Your task to perform on an android device: open app "Facebook Messenger" Image 0: 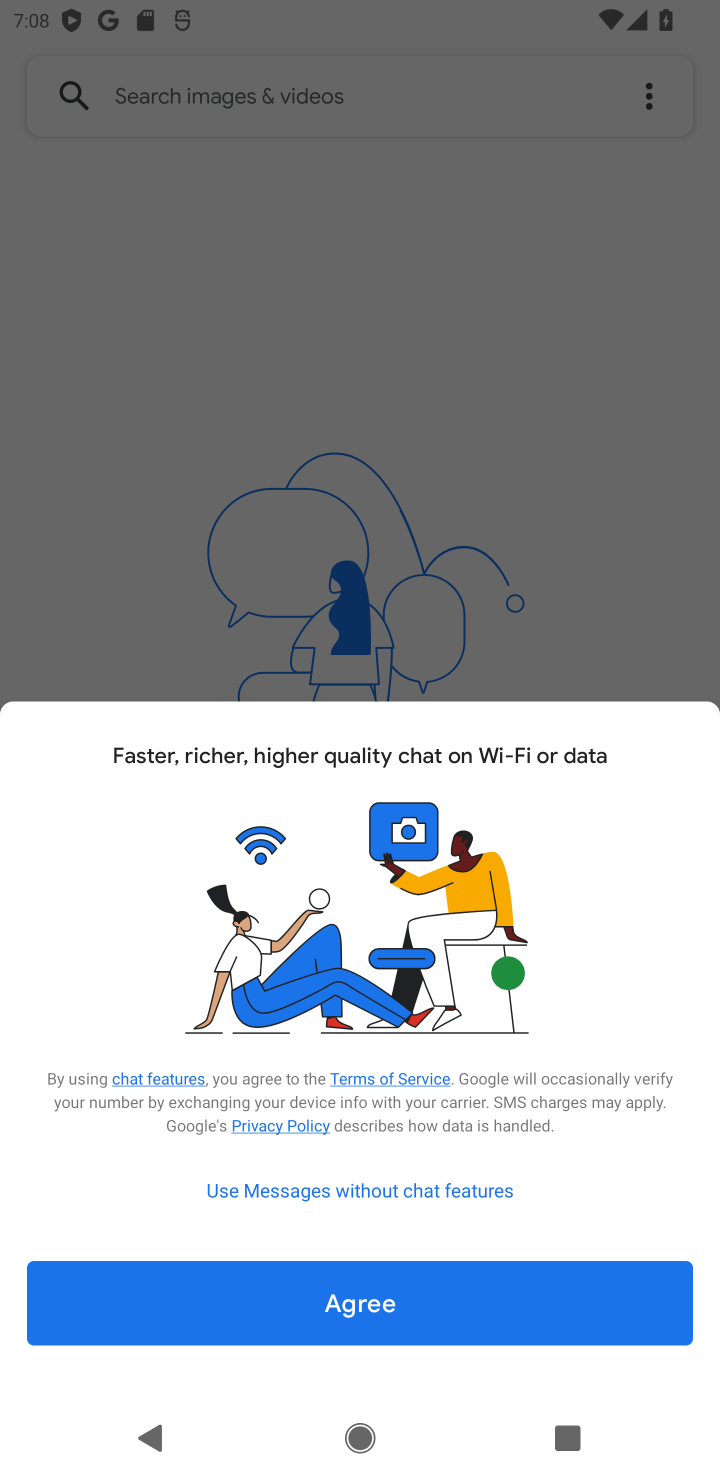
Step 0: press back button
Your task to perform on an android device: open app "Facebook Messenger" Image 1: 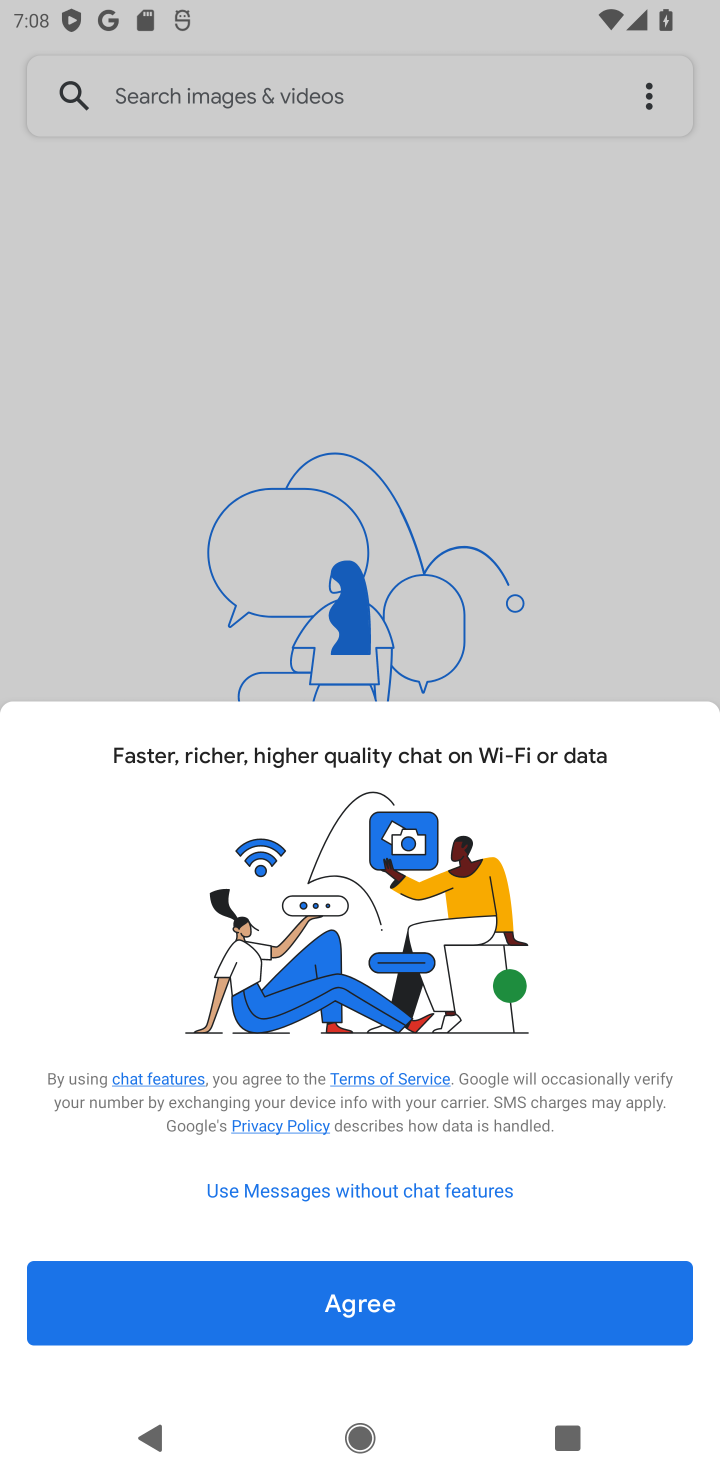
Step 1: press back button
Your task to perform on an android device: open app "Facebook Messenger" Image 2: 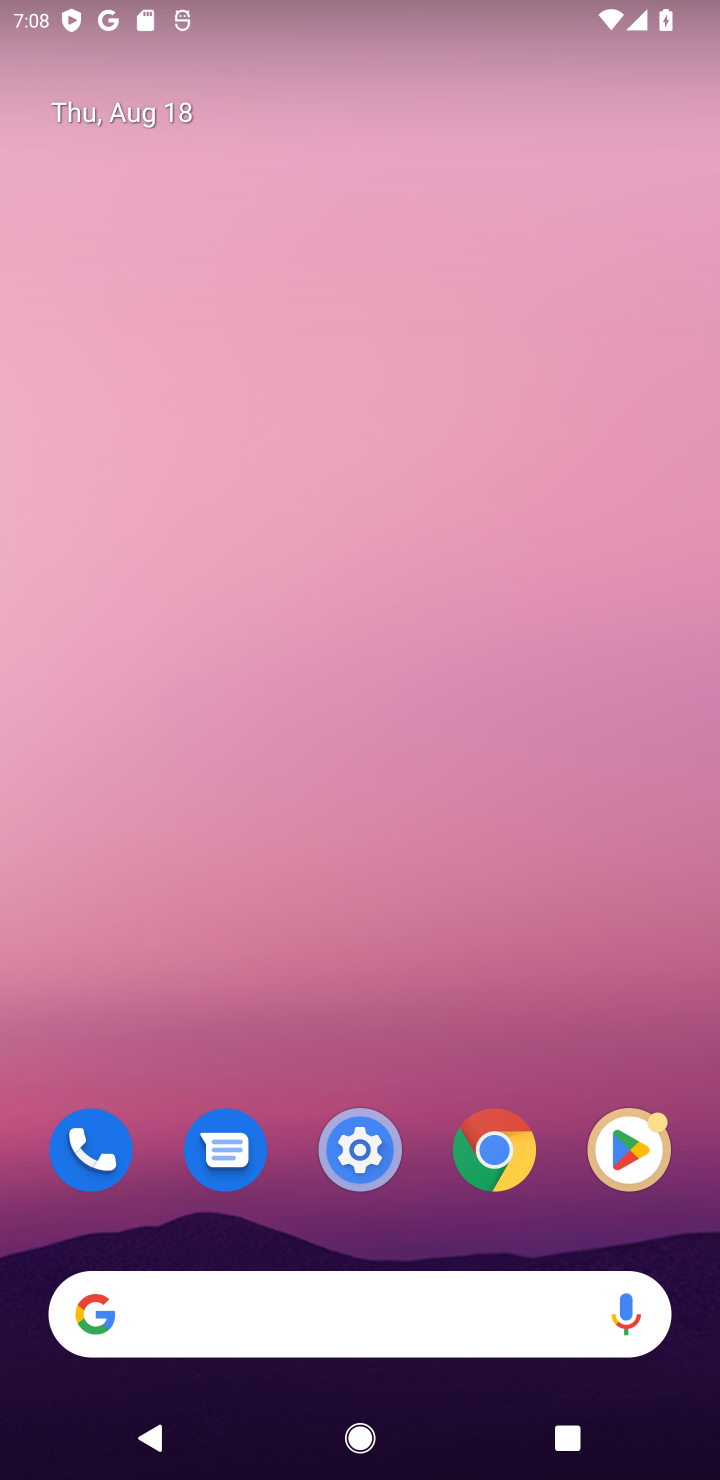
Step 2: press back button
Your task to perform on an android device: open app "Facebook Messenger" Image 3: 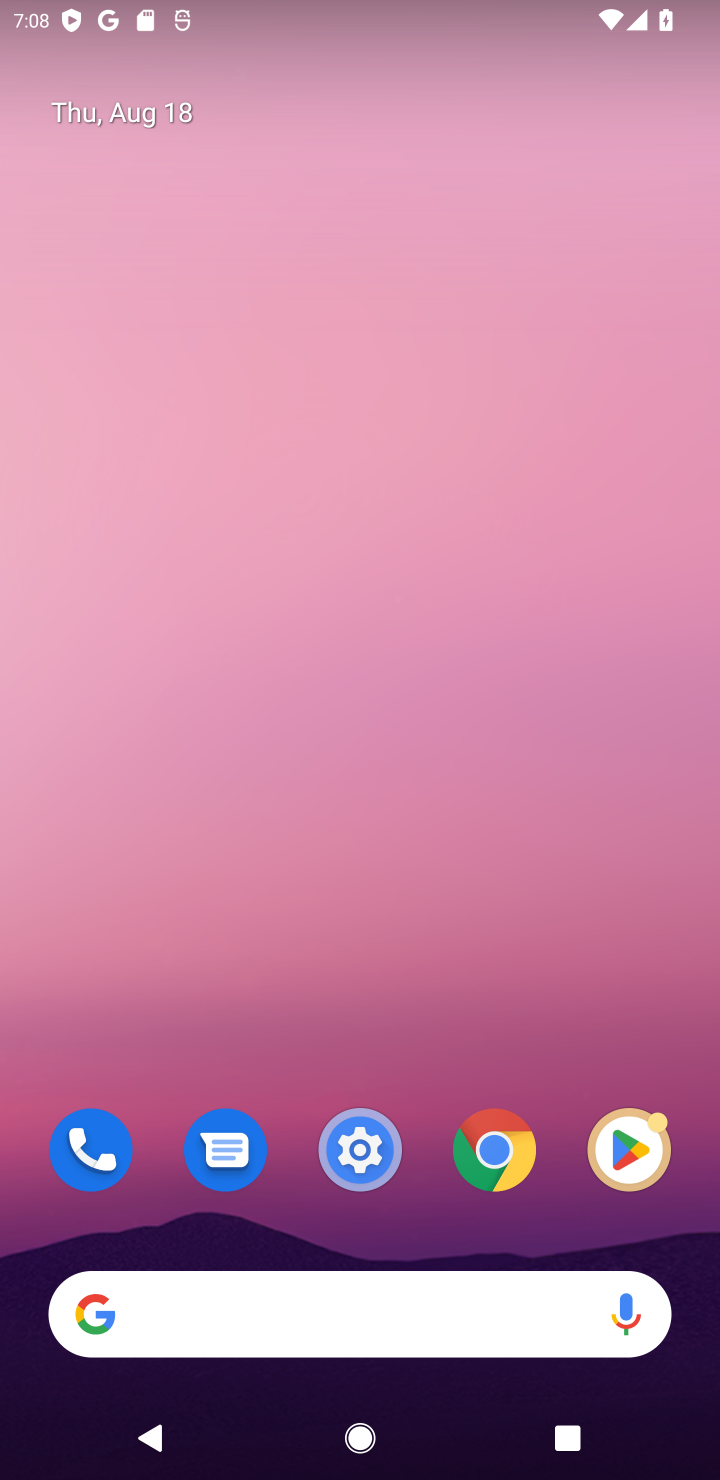
Step 3: drag from (412, 1274) to (594, 421)
Your task to perform on an android device: open app "Facebook Messenger" Image 4: 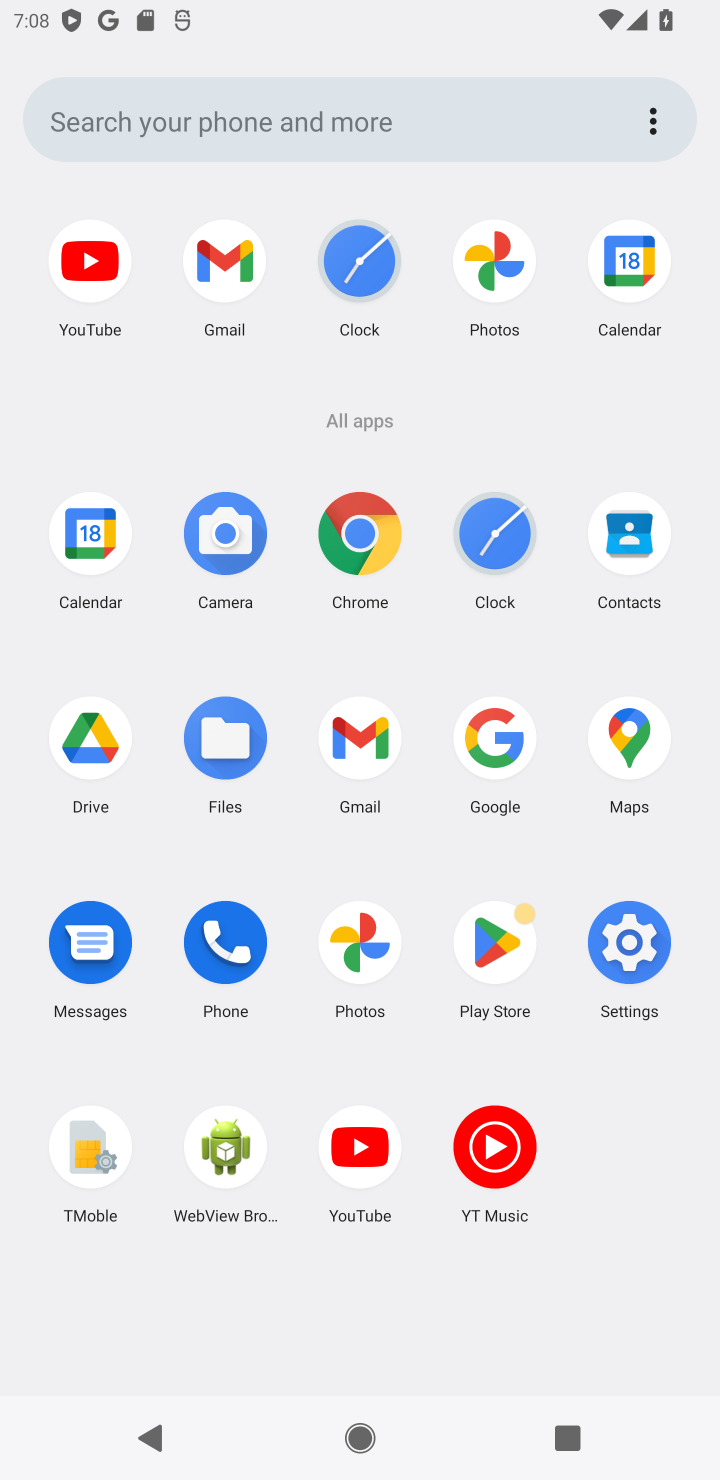
Step 4: click (491, 948)
Your task to perform on an android device: open app "Facebook Messenger" Image 5: 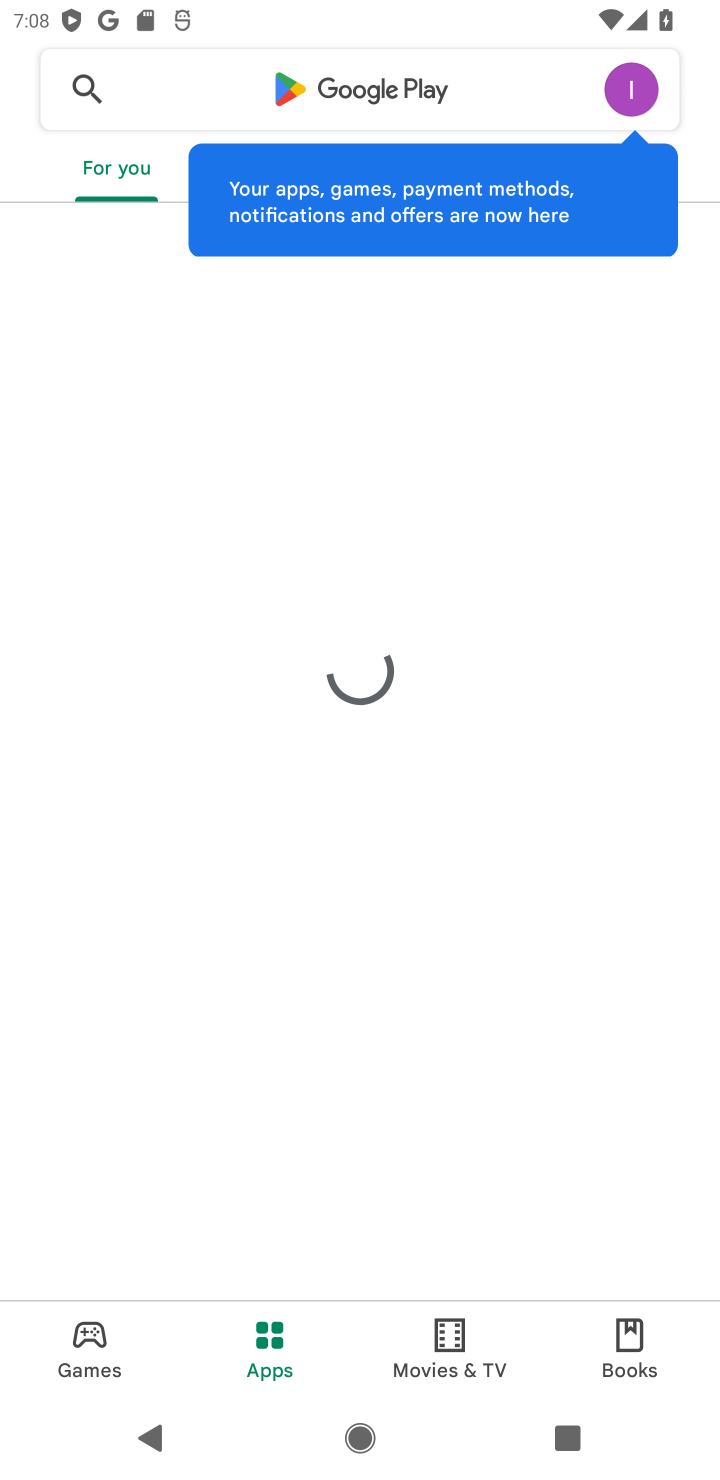
Step 5: click (400, 93)
Your task to perform on an android device: open app "Facebook Messenger" Image 6: 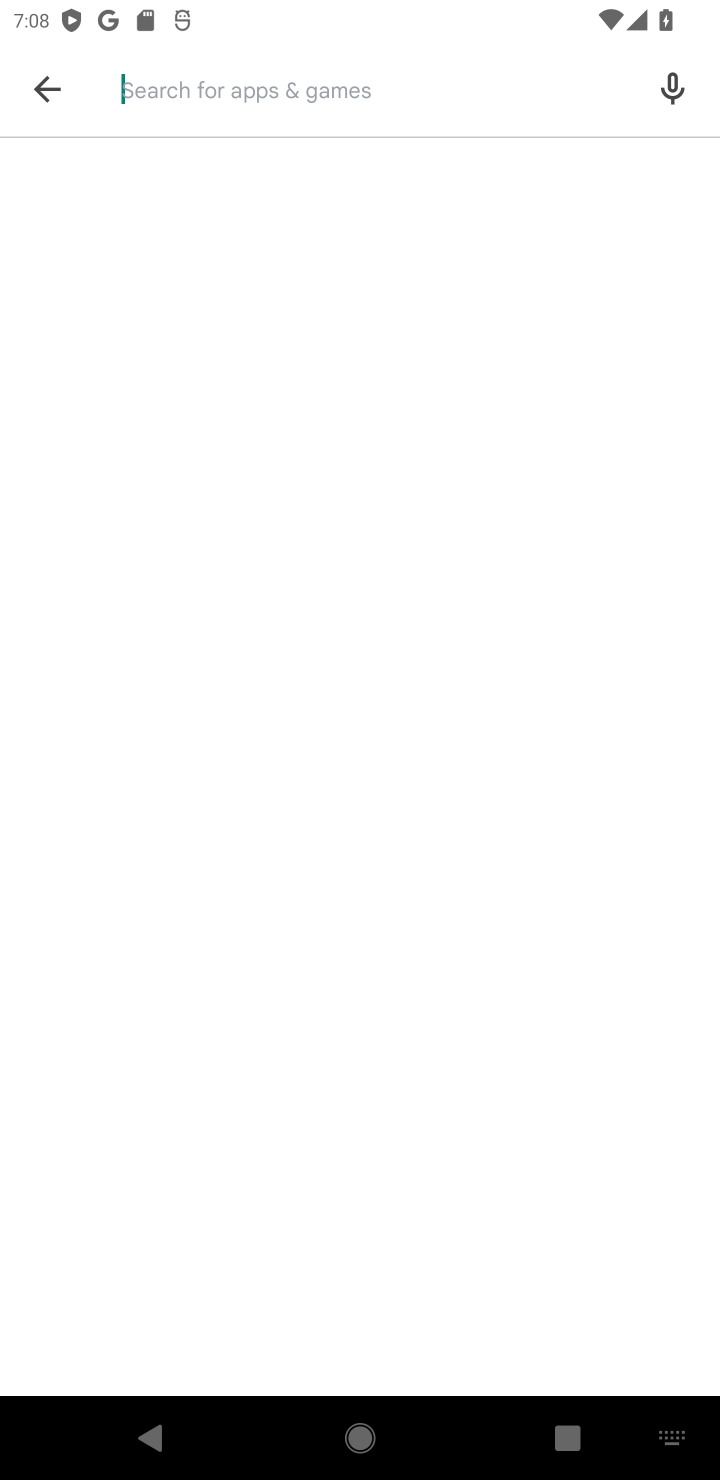
Step 6: type "Facebook Messenger"
Your task to perform on an android device: open app "Facebook Messenger" Image 7: 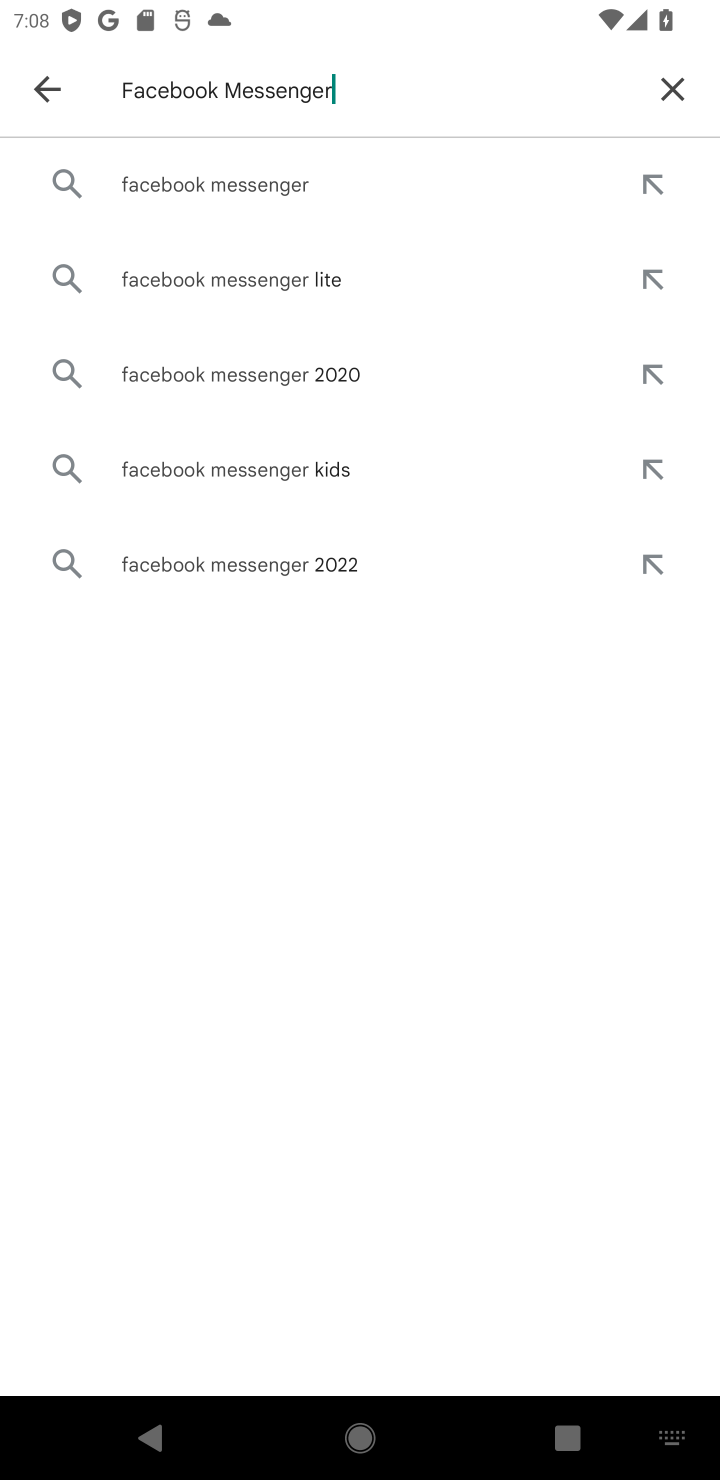
Step 7: click (186, 161)
Your task to perform on an android device: open app "Facebook Messenger" Image 8: 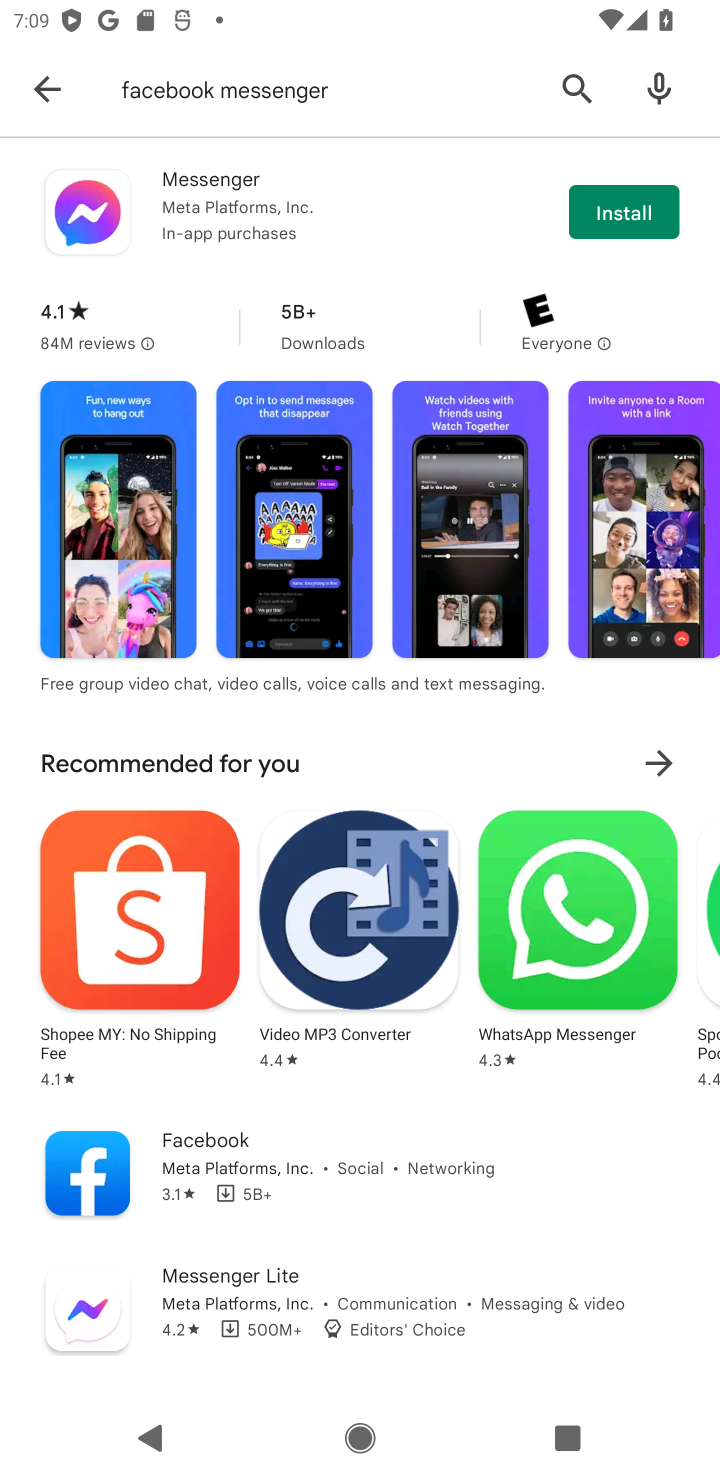
Step 8: task complete